Your task to perform on an android device: search for starred emails in the gmail app Image 0: 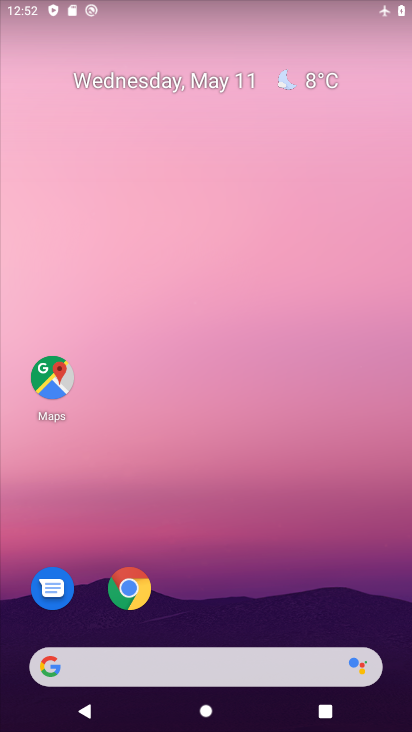
Step 0: drag from (252, 508) to (252, 82)
Your task to perform on an android device: search for starred emails in the gmail app Image 1: 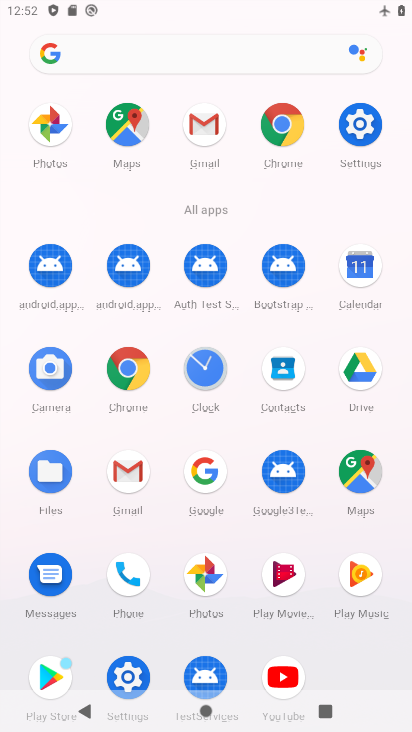
Step 1: click (217, 133)
Your task to perform on an android device: search for starred emails in the gmail app Image 2: 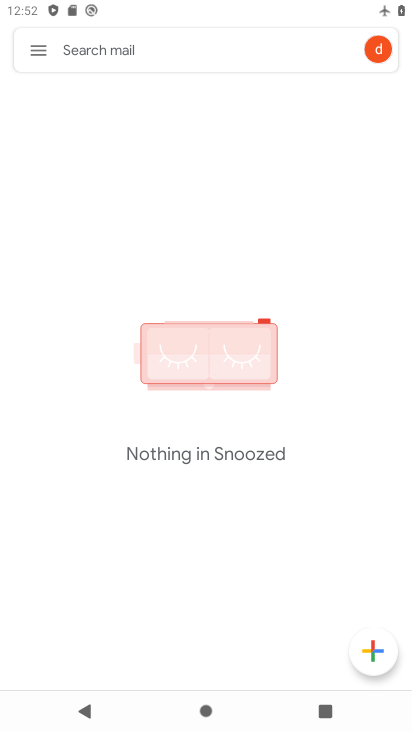
Step 2: click (39, 50)
Your task to perform on an android device: search for starred emails in the gmail app Image 3: 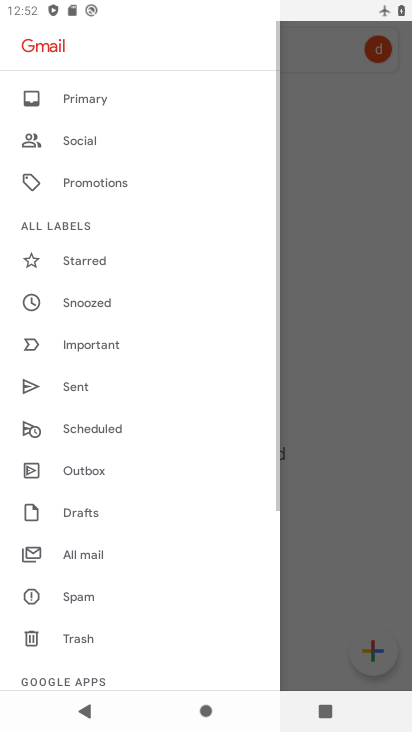
Step 3: click (111, 255)
Your task to perform on an android device: search for starred emails in the gmail app Image 4: 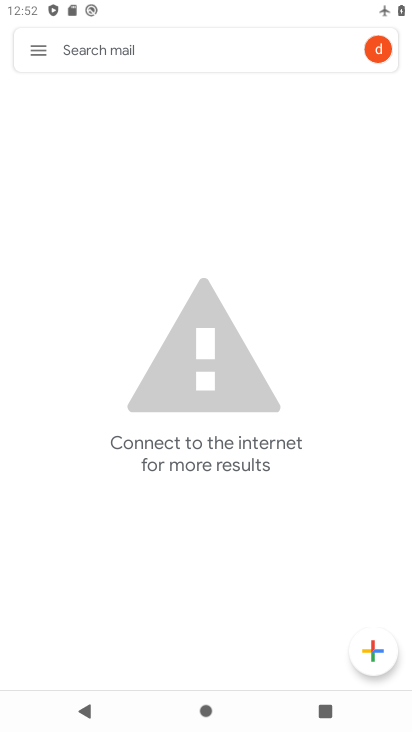
Step 4: task complete